Your task to perform on an android device: Open settings Image 0: 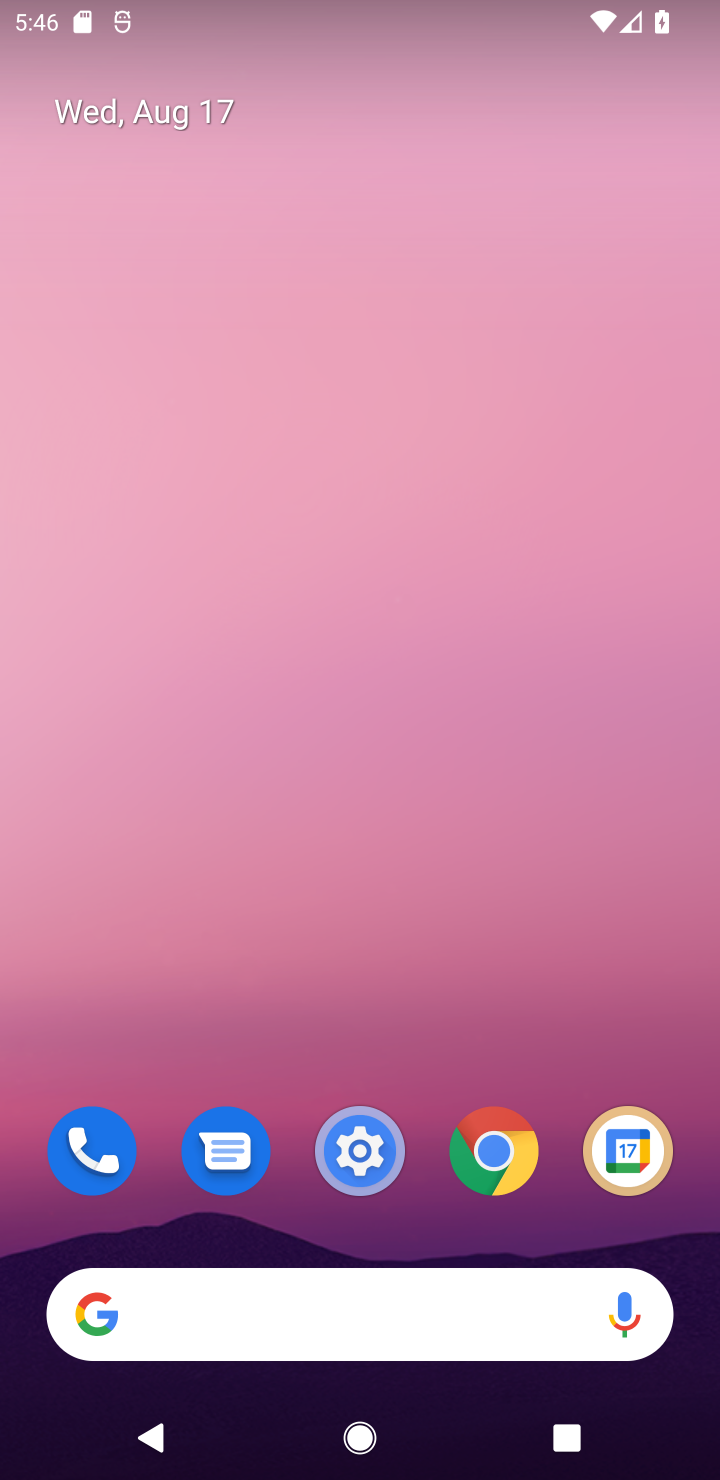
Step 0: click (354, 1181)
Your task to perform on an android device: Open settings Image 1: 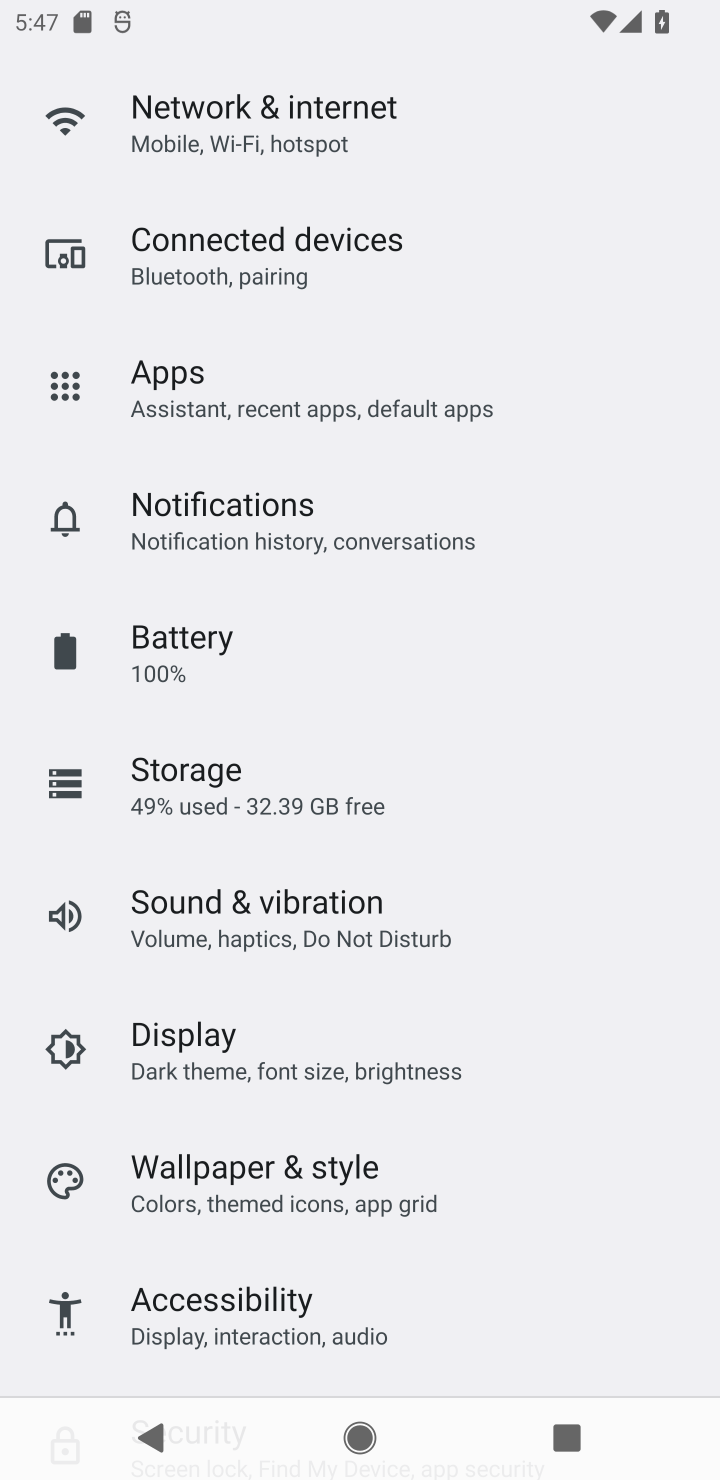
Step 1: click (311, 177)
Your task to perform on an android device: Open settings Image 2: 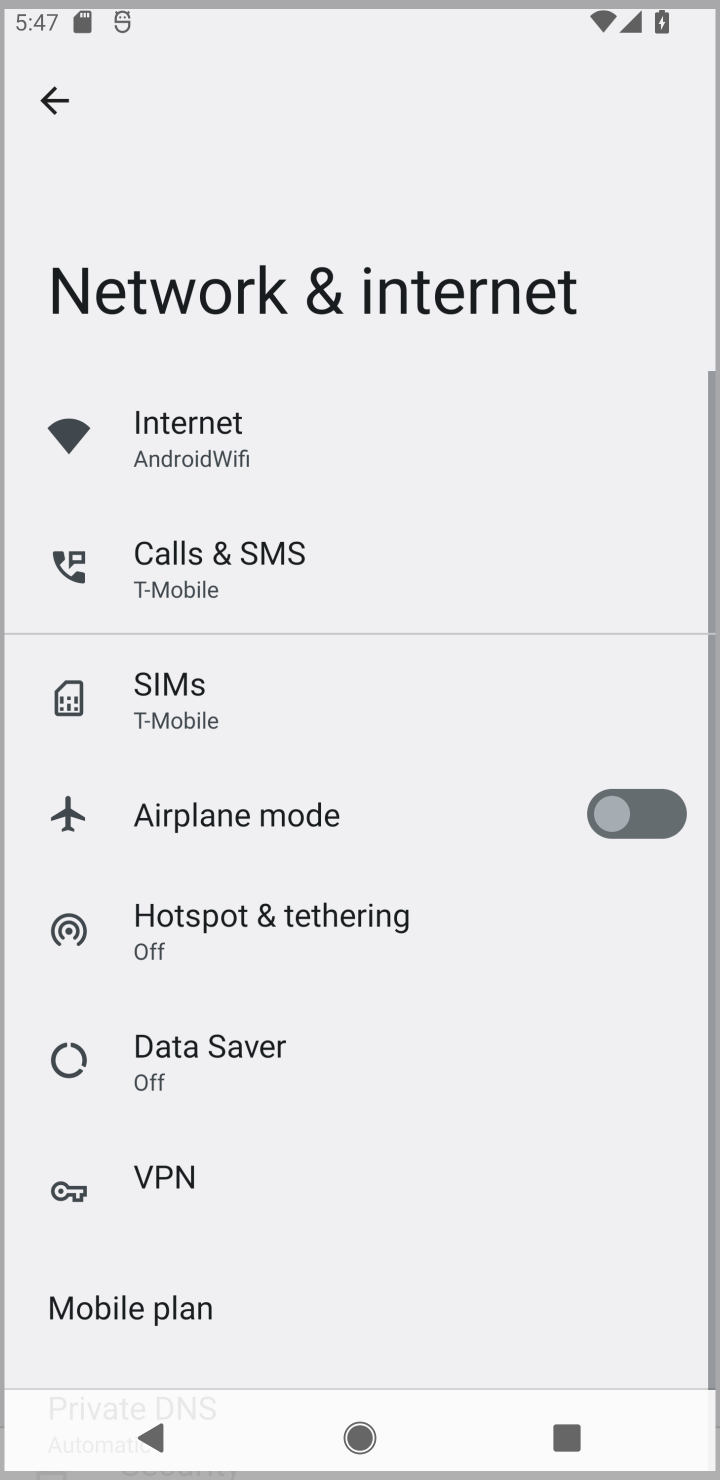
Step 2: task complete